Your task to perform on an android device: Open CNN.com Image 0: 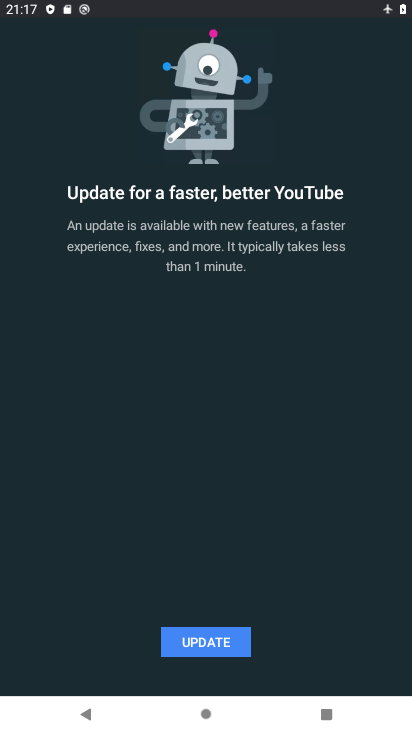
Step 0: drag from (203, 673) to (150, 182)
Your task to perform on an android device: Open CNN.com Image 1: 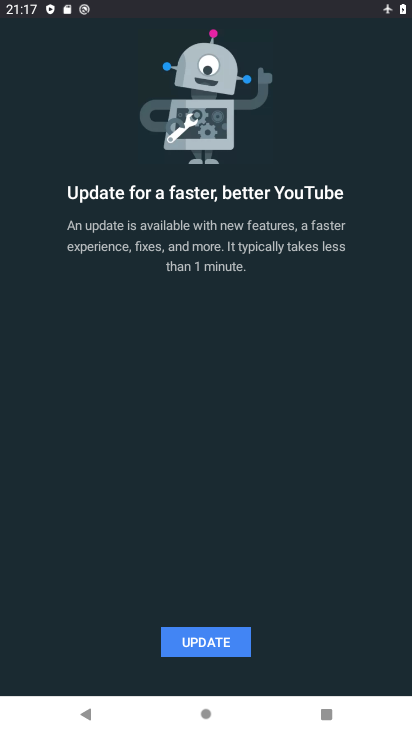
Step 1: press back button
Your task to perform on an android device: Open CNN.com Image 2: 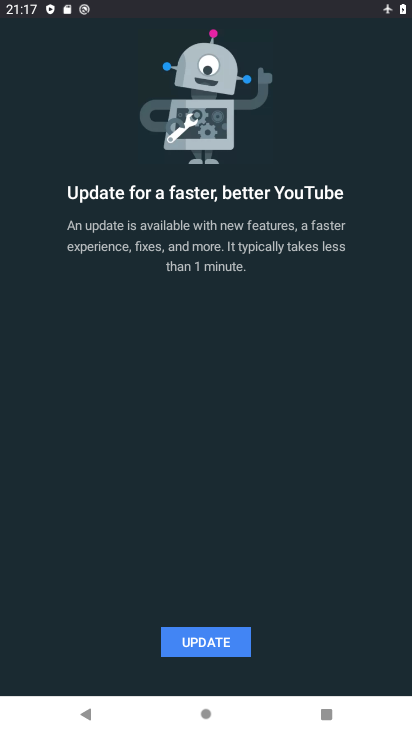
Step 2: press back button
Your task to perform on an android device: Open CNN.com Image 3: 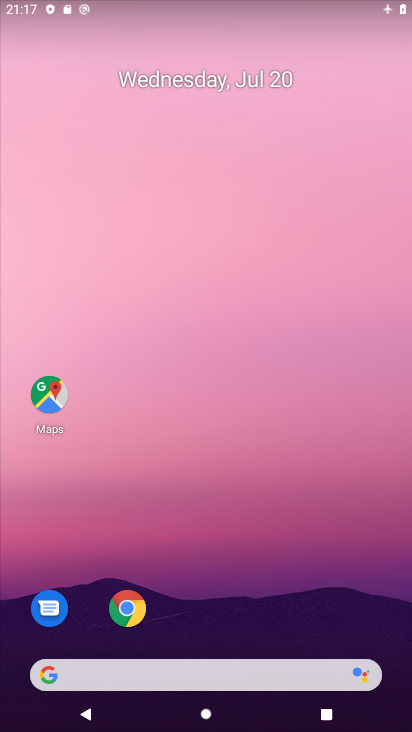
Step 3: drag from (177, 634) to (219, 44)
Your task to perform on an android device: Open CNN.com Image 4: 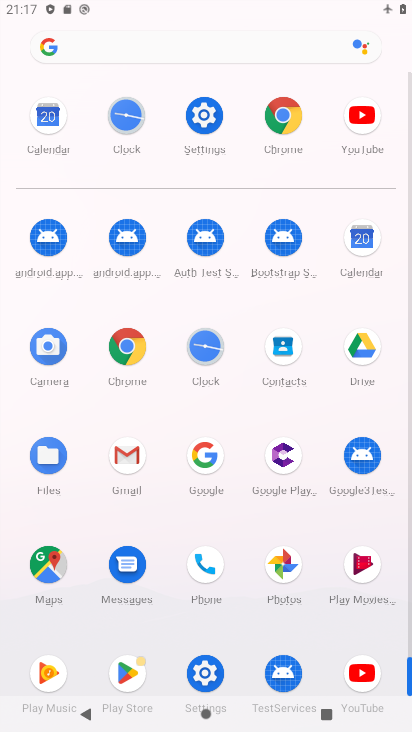
Step 4: click (197, 110)
Your task to perform on an android device: Open CNN.com Image 5: 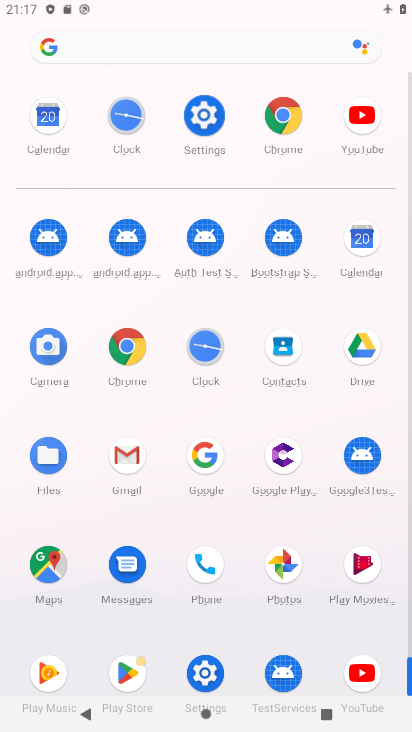
Step 5: click (202, 127)
Your task to perform on an android device: Open CNN.com Image 6: 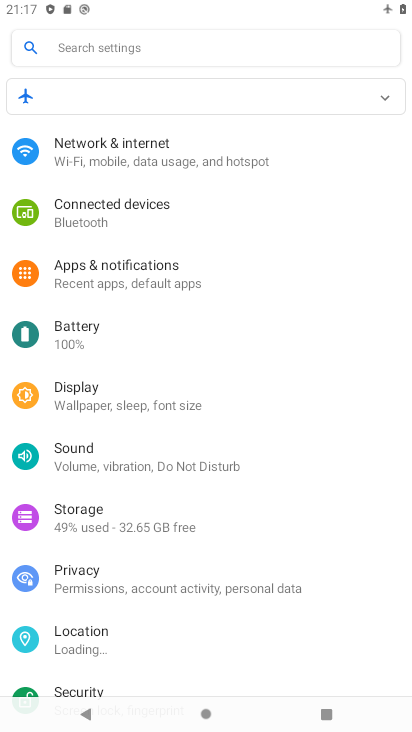
Step 6: press home button
Your task to perform on an android device: Open CNN.com Image 7: 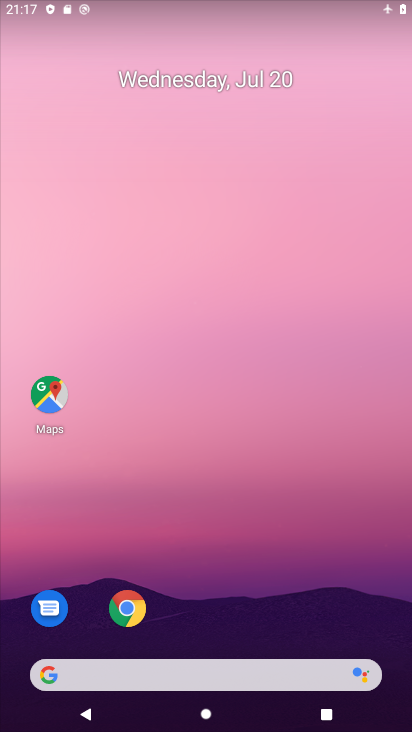
Step 7: drag from (232, 661) to (218, 172)
Your task to perform on an android device: Open CNN.com Image 8: 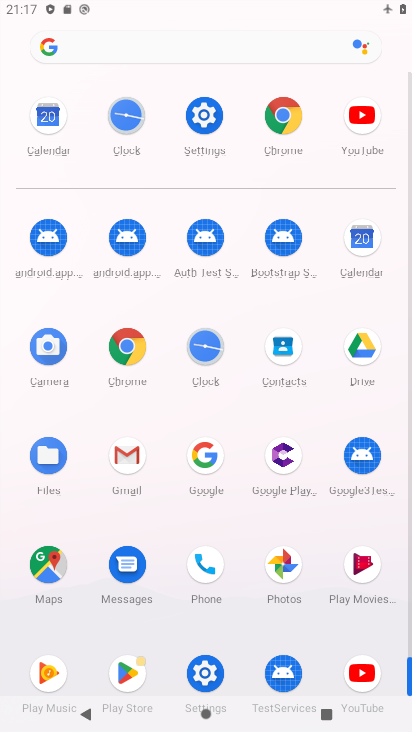
Step 8: drag from (222, 625) to (251, 95)
Your task to perform on an android device: Open CNN.com Image 9: 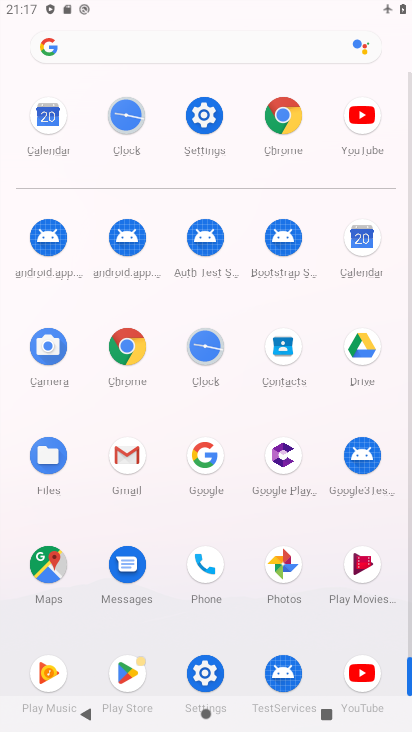
Step 9: click (280, 116)
Your task to perform on an android device: Open CNN.com Image 10: 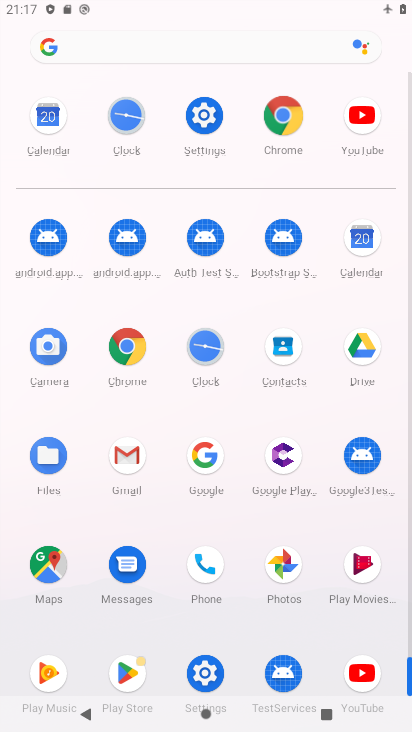
Step 10: click (282, 119)
Your task to perform on an android device: Open CNN.com Image 11: 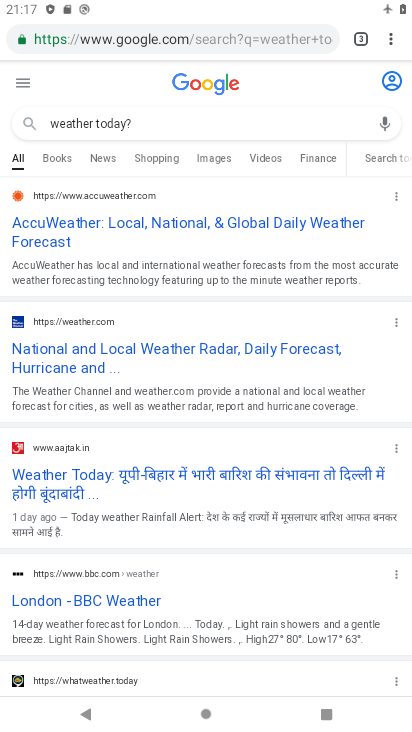
Step 11: drag from (389, 41) to (256, 74)
Your task to perform on an android device: Open CNN.com Image 12: 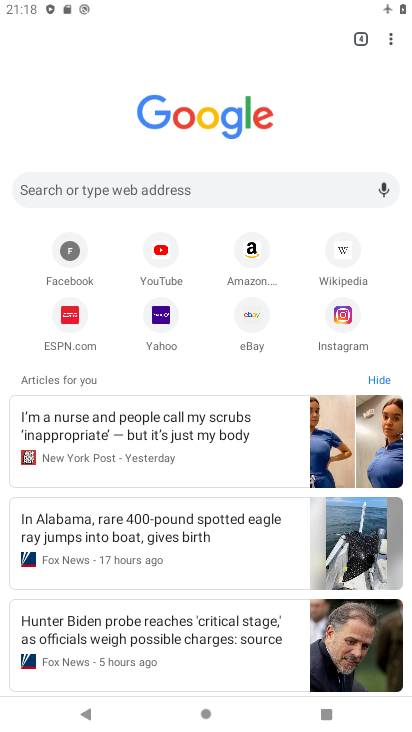
Step 12: click (38, 178)
Your task to perform on an android device: Open CNN.com Image 13: 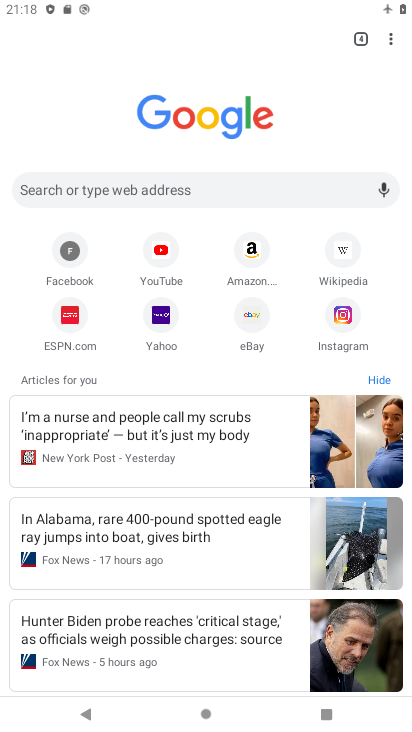
Step 13: click (39, 183)
Your task to perform on an android device: Open CNN.com Image 14: 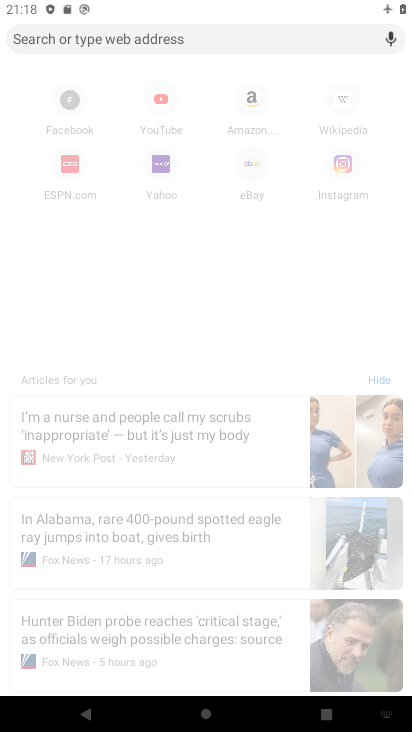
Step 14: type "CNN.com"
Your task to perform on an android device: Open CNN.com Image 15: 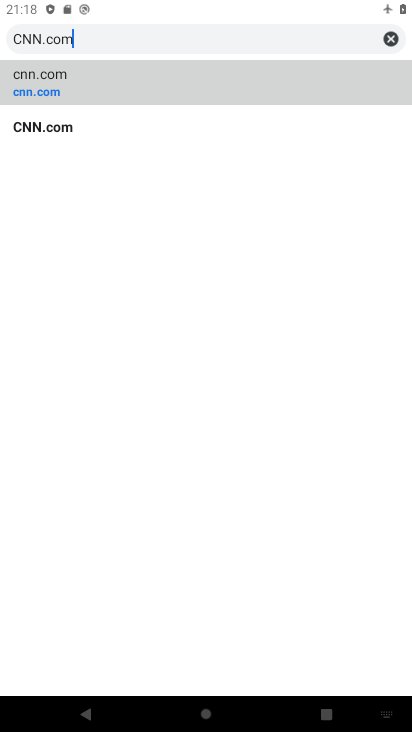
Step 15: click (42, 69)
Your task to perform on an android device: Open CNN.com Image 16: 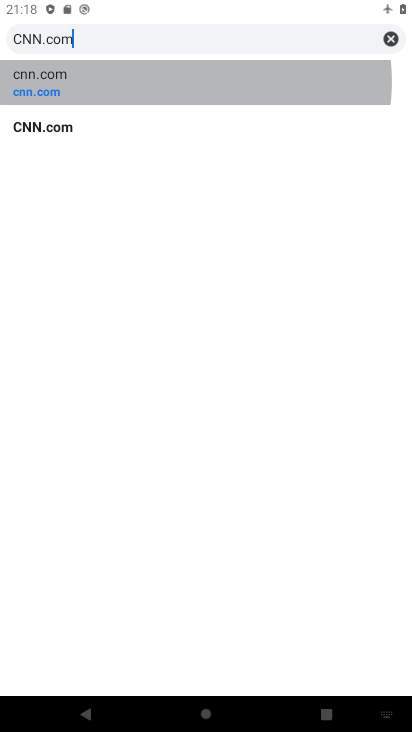
Step 16: click (41, 68)
Your task to perform on an android device: Open CNN.com Image 17: 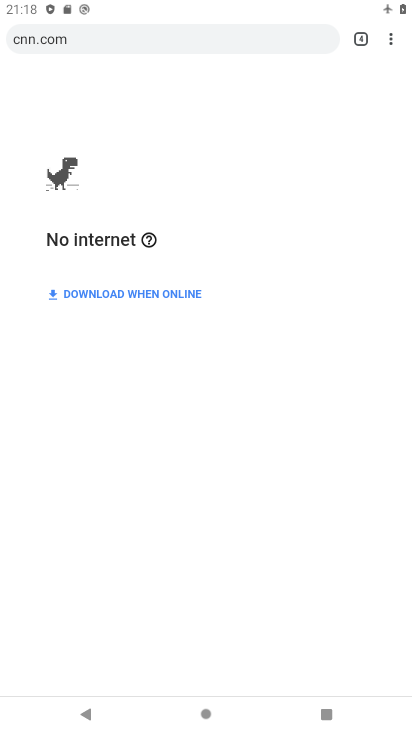
Step 17: task complete